Your task to perform on an android device: turn on sleep mode Image 0: 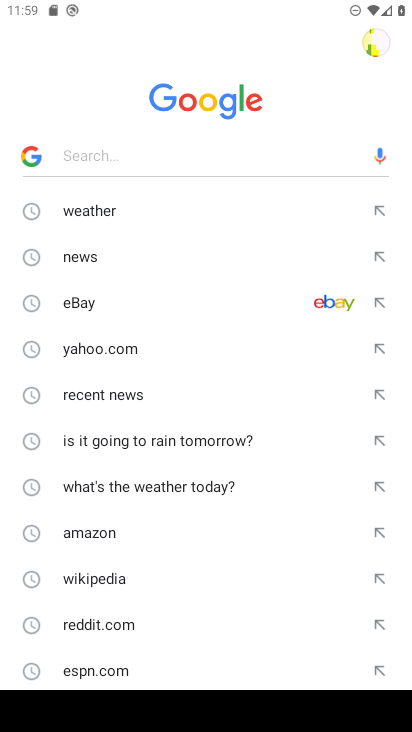
Step 0: press home button
Your task to perform on an android device: turn on sleep mode Image 1: 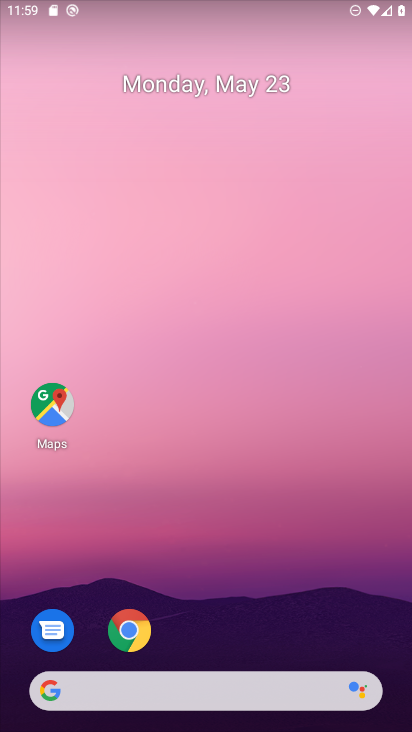
Step 1: drag from (192, 635) to (229, 119)
Your task to perform on an android device: turn on sleep mode Image 2: 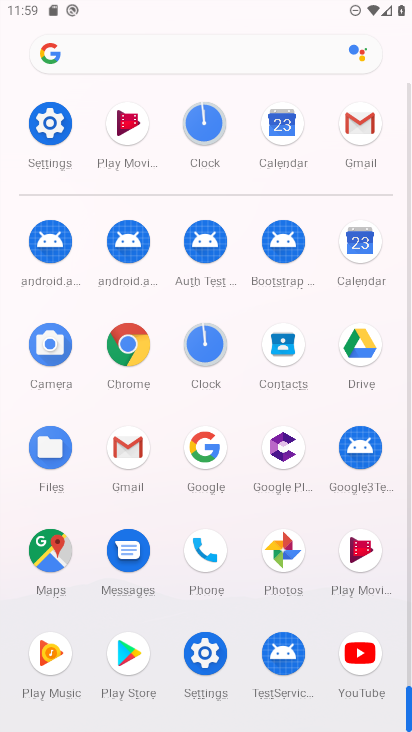
Step 2: click (205, 650)
Your task to perform on an android device: turn on sleep mode Image 3: 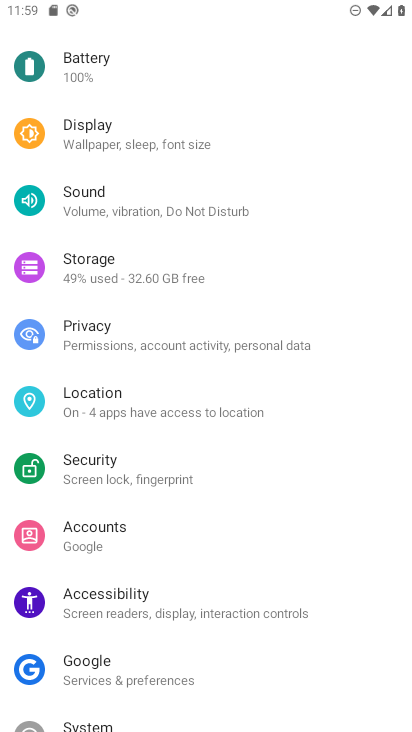
Step 3: click (108, 144)
Your task to perform on an android device: turn on sleep mode Image 4: 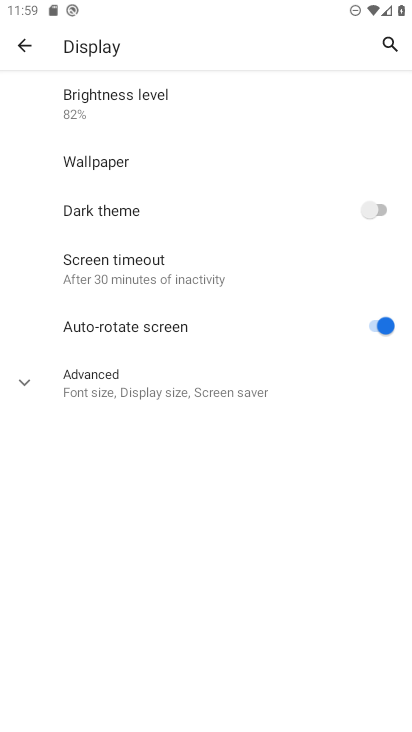
Step 4: task complete